Your task to perform on an android device: open app "Messenger Lite" (install if not already installed) Image 0: 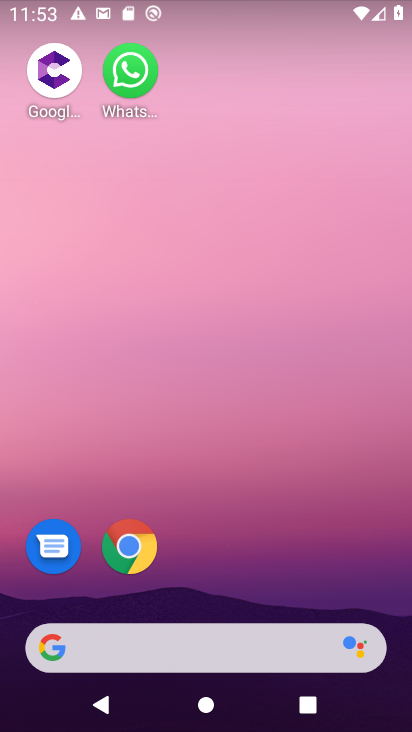
Step 0: drag from (188, 641) to (155, 109)
Your task to perform on an android device: open app "Messenger Lite" (install if not already installed) Image 1: 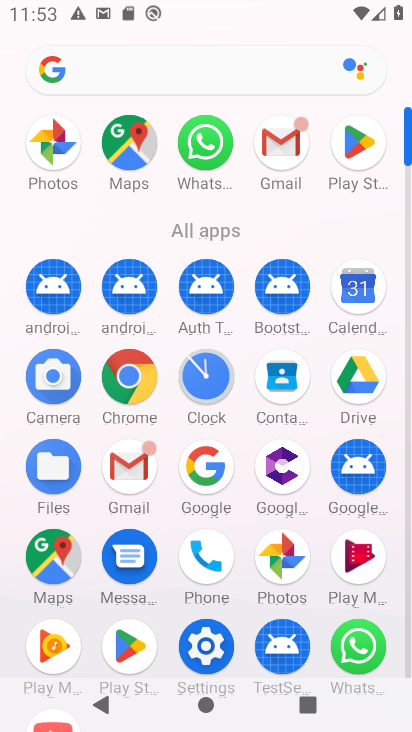
Step 1: click (128, 659)
Your task to perform on an android device: open app "Messenger Lite" (install if not already installed) Image 2: 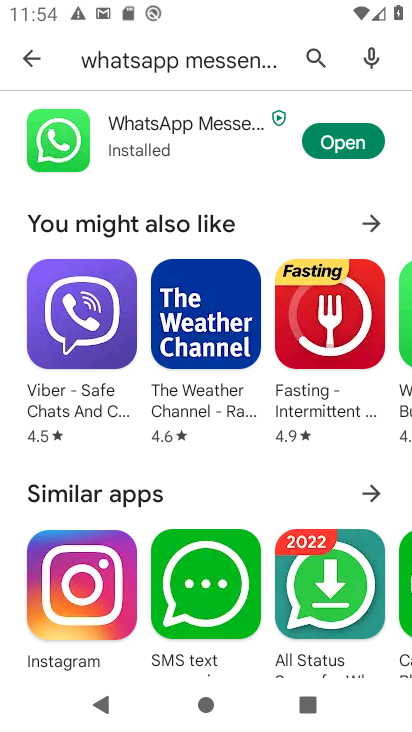
Step 2: click (308, 53)
Your task to perform on an android device: open app "Messenger Lite" (install if not already installed) Image 3: 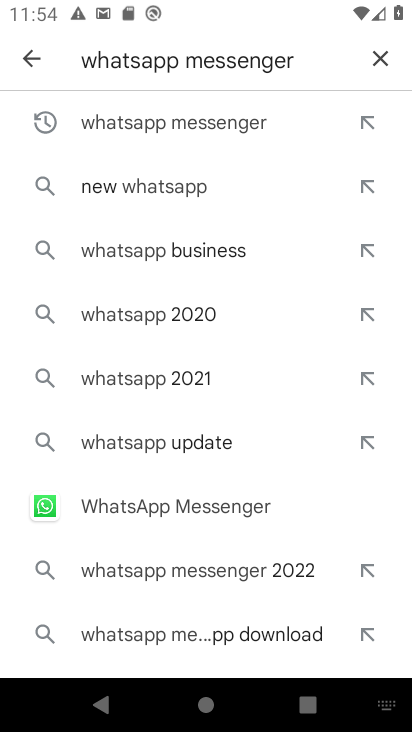
Step 3: click (388, 55)
Your task to perform on an android device: open app "Messenger Lite" (install if not already installed) Image 4: 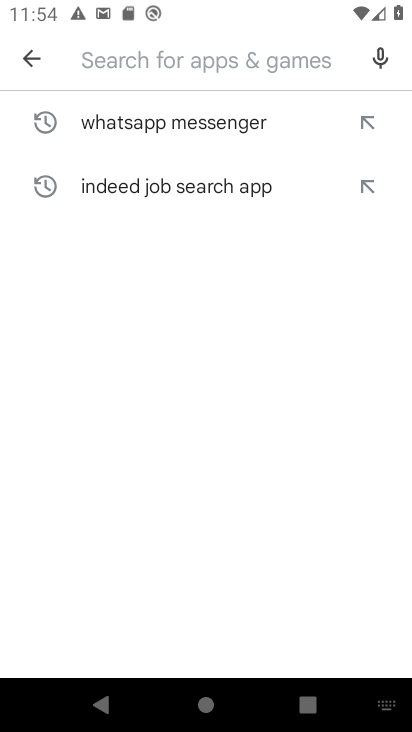
Step 4: type "Messenger Lite"
Your task to perform on an android device: open app "Messenger Lite" (install if not already installed) Image 5: 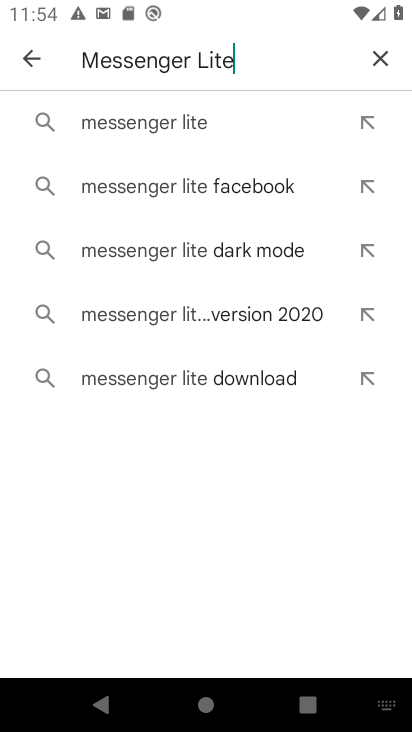
Step 5: click (199, 122)
Your task to perform on an android device: open app "Messenger Lite" (install if not already installed) Image 6: 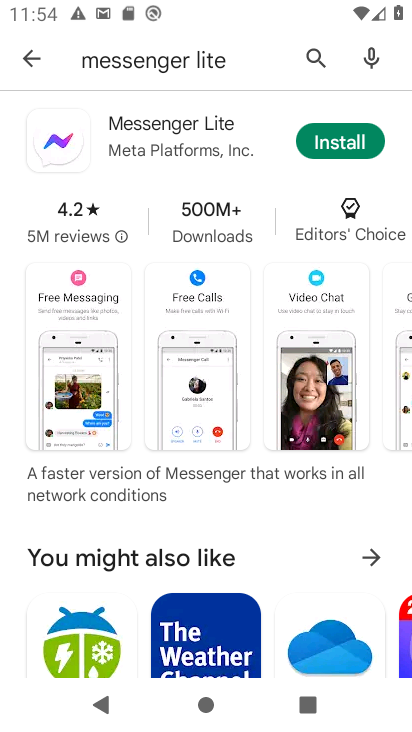
Step 6: click (371, 146)
Your task to perform on an android device: open app "Messenger Lite" (install if not already installed) Image 7: 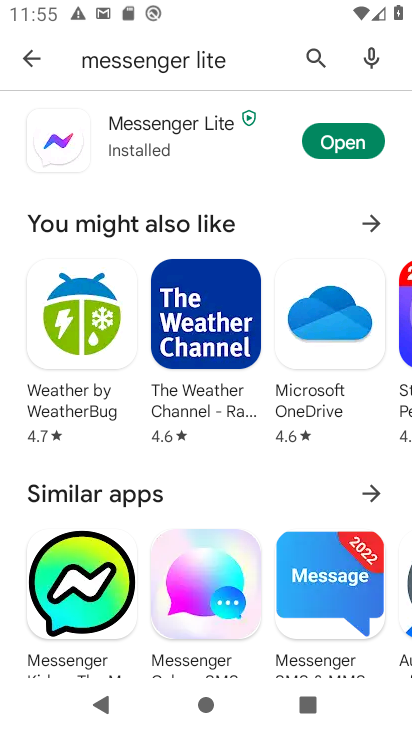
Step 7: click (354, 137)
Your task to perform on an android device: open app "Messenger Lite" (install if not already installed) Image 8: 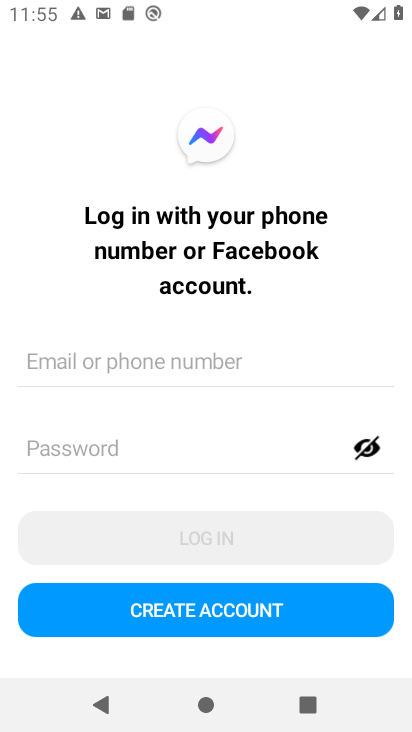
Step 8: task complete